Your task to perform on an android device: Go to sound settings Image 0: 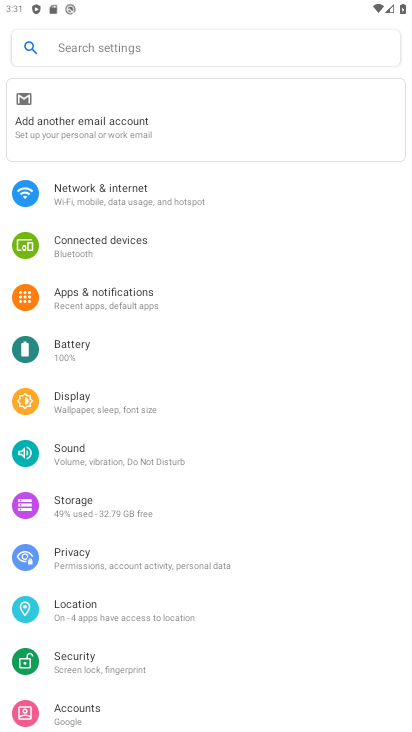
Step 0: click (92, 462)
Your task to perform on an android device: Go to sound settings Image 1: 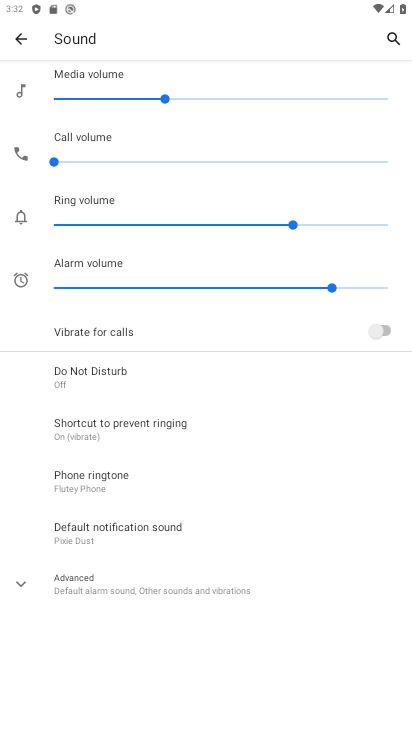
Step 1: task complete